Your task to perform on an android device: change text size in settings app Image 0: 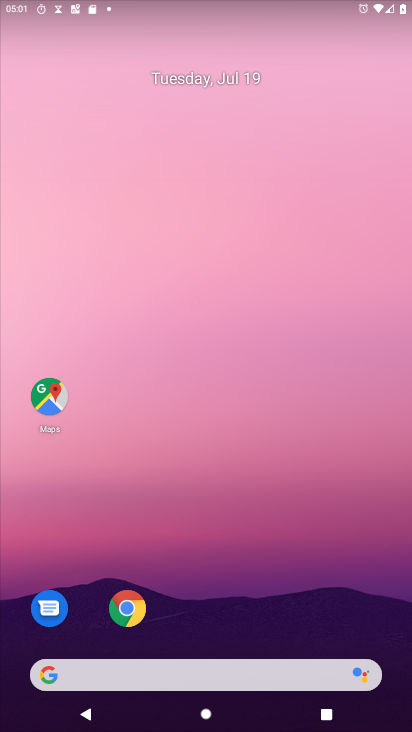
Step 0: drag from (224, 680) to (327, 65)
Your task to perform on an android device: change text size in settings app Image 1: 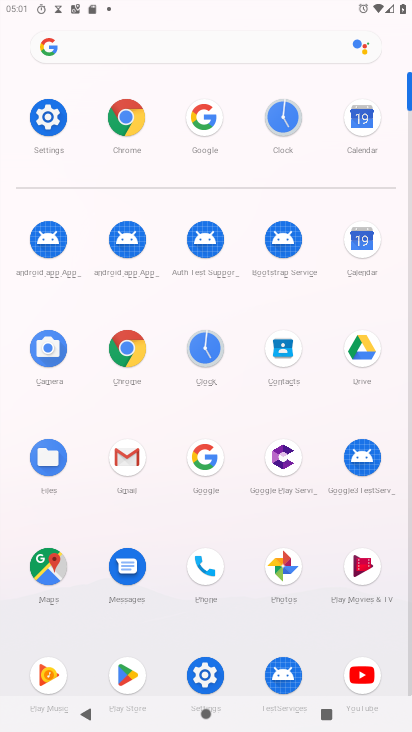
Step 1: click (49, 116)
Your task to perform on an android device: change text size in settings app Image 2: 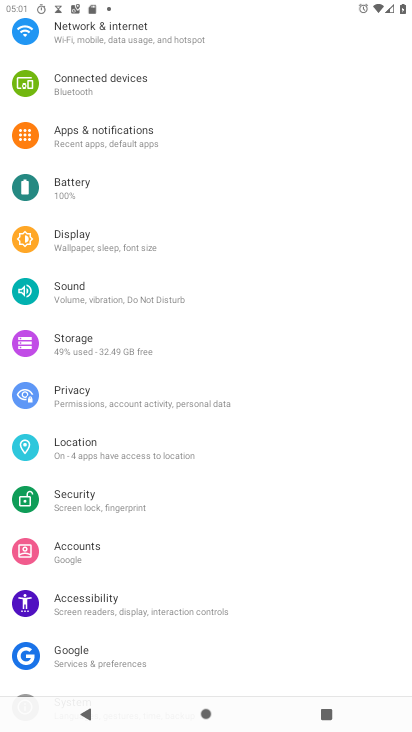
Step 2: drag from (101, 626) to (167, 347)
Your task to perform on an android device: change text size in settings app Image 3: 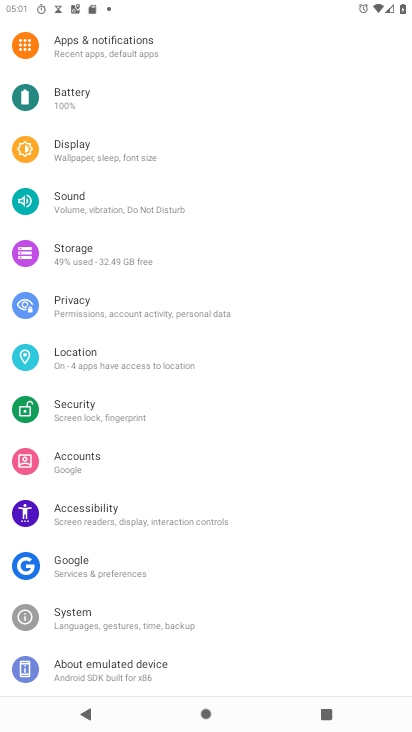
Step 3: click (101, 512)
Your task to perform on an android device: change text size in settings app Image 4: 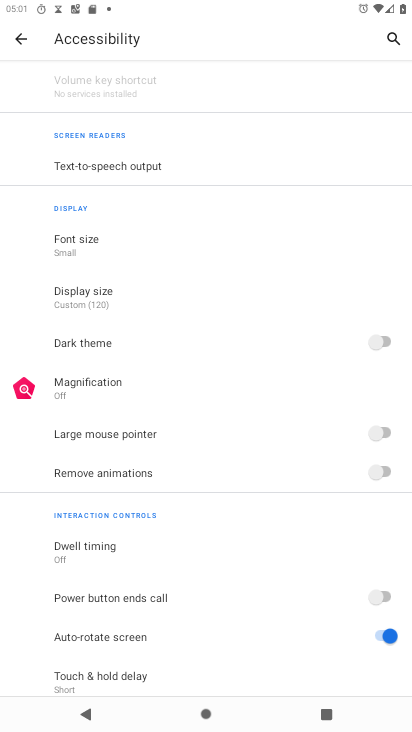
Step 4: click (84, 250)
Your task to perform on an android device: change text size in settings app Image 5: 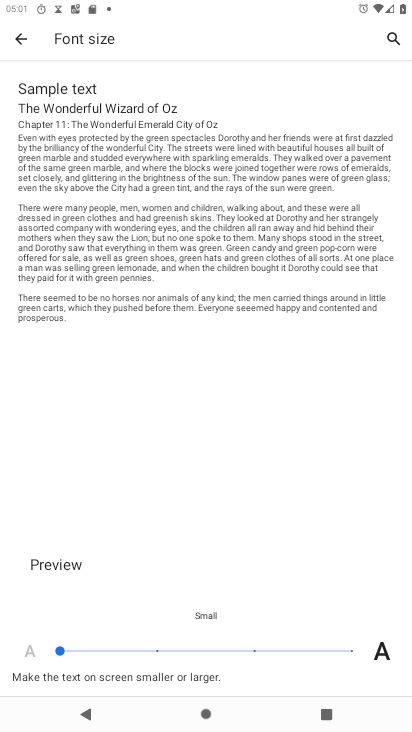
Step 5: click (254, 650)
Your task to perform on an android device: change text size in settings app Image 6: 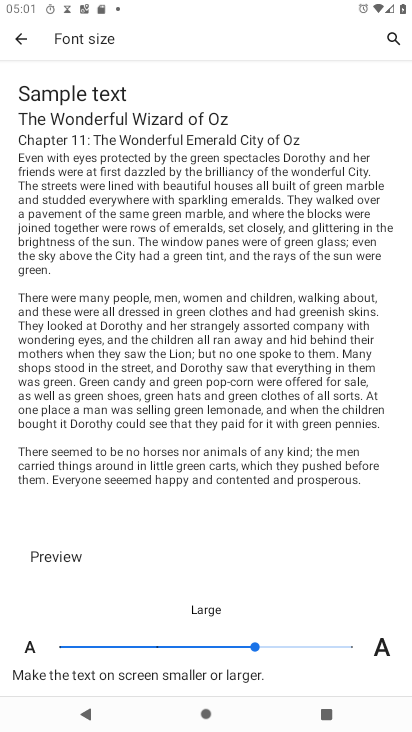
Step 6: task complete